Your task to perform on an android device: toggle data saver in the chrome app Image 0: 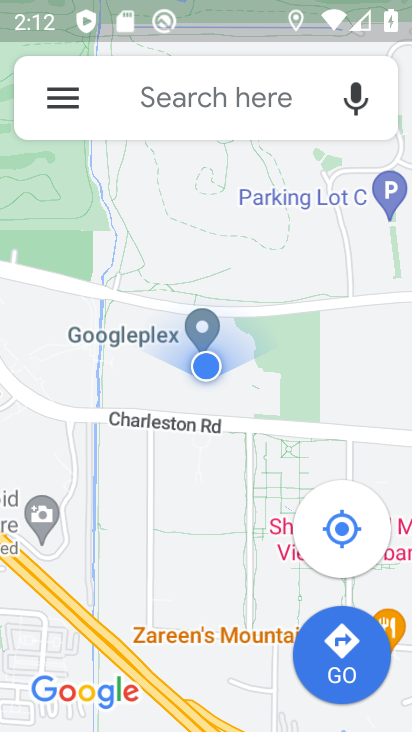
Step 0: press home button
Your task to perform on an android device: toggle data saver in the chrome app Image 1: 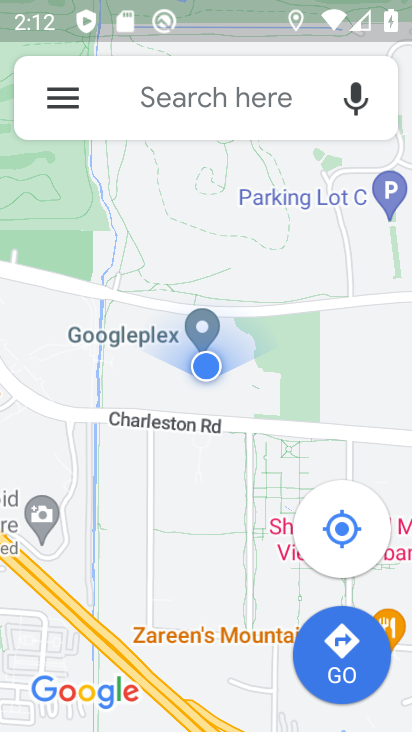
Step 1: press home button
Your task to perform on an android device: toggle data saver in the chrome app Image 2: 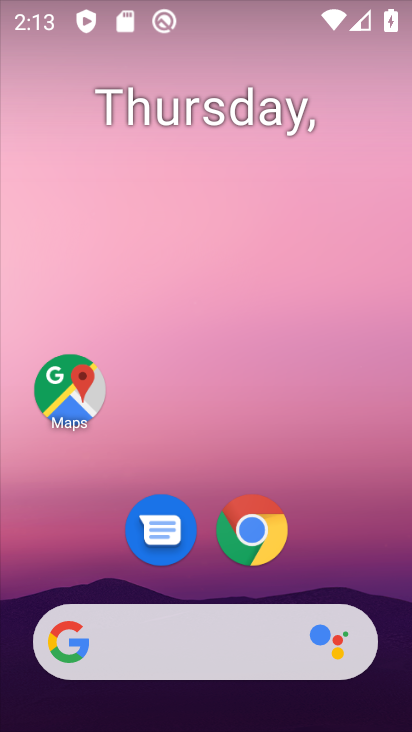
Step 2: drag from (349, 560) to (298, 218)
Your task to perform on an android device: toggle data saver in the chrome app Image 3: 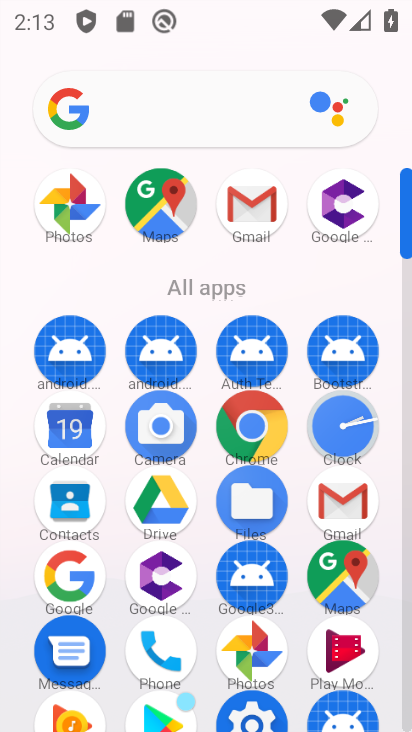
Step 3: click (248, 706)
Your task to perform on an android device: toggle data saver in the chrome app Image 4: 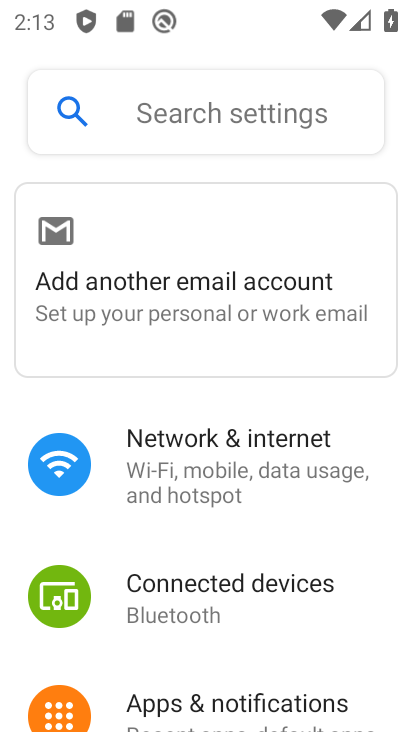
Step 4: drag from (339, 552) to (345, 264)
Your task to perform on an android device: toggle data saver in the chrome app Image 5: 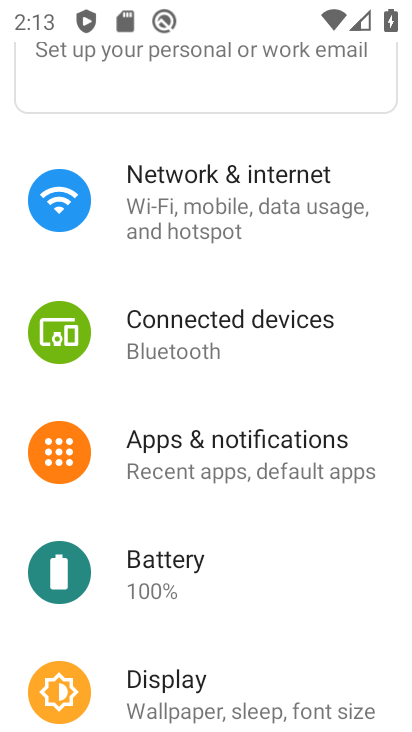
Step 5: drag from (232, 652) to (238, 253)
Your task to perform on an android device: toggle data saver in the chrome app Image 6: 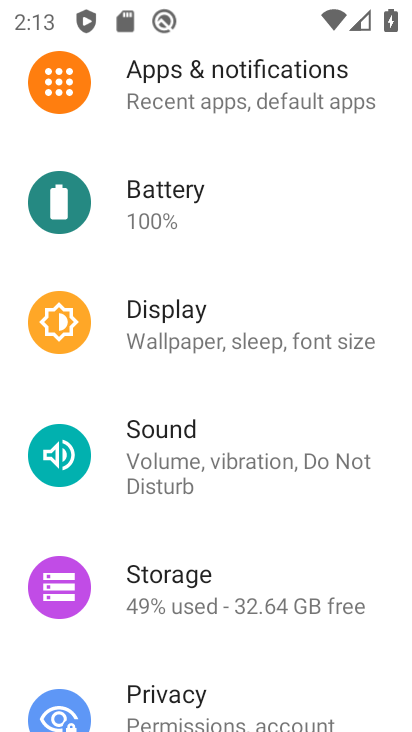
Step 6: drag from (199, 608) to (178, 360)
Your task to perform on an android device: toggle data saver in the chrome app Image 7: 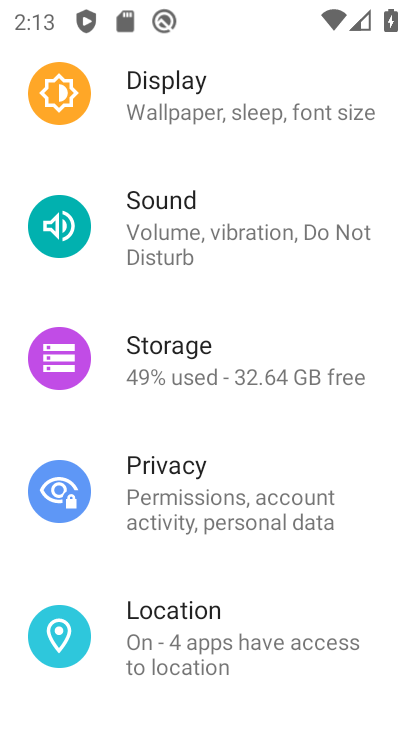
Step 7: drag from (209, 644) to (213, 414)
Your task to perform on an android device: toggle data saver in the chrome app Image 8: 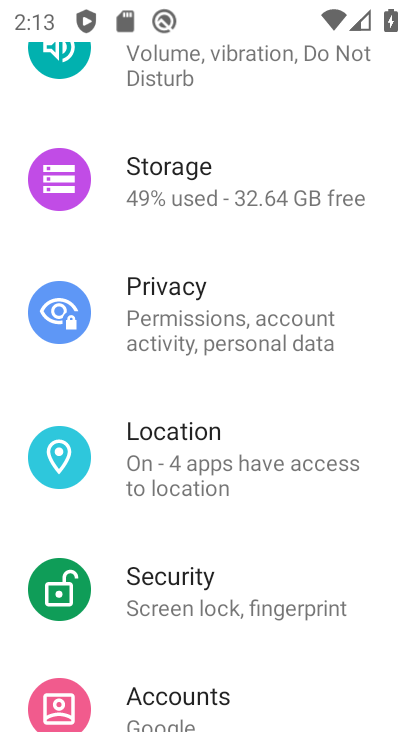
Step 8: press home button
Your task to perform on an android device: toggle data saver in the chrome app Image 9: 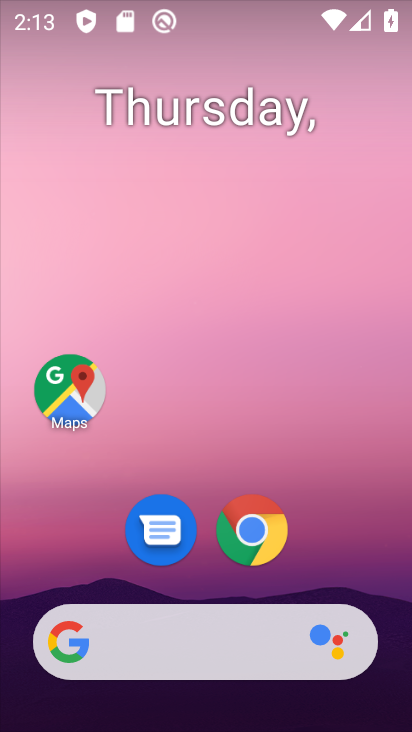
Step 9: drag from (392, 542) to (348, 0)
Your task to perform on an android device: toggle data saver in the chrome app Image 10: 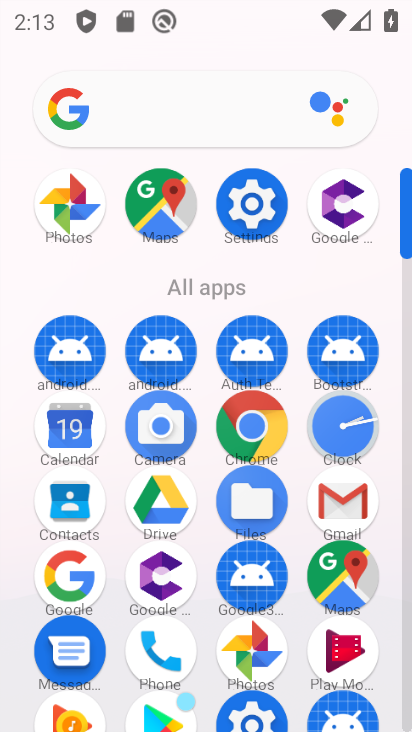
Step 10: click (243, 448)
Your task to perform on an android device: toggle data saver in the chrome app Image 11: 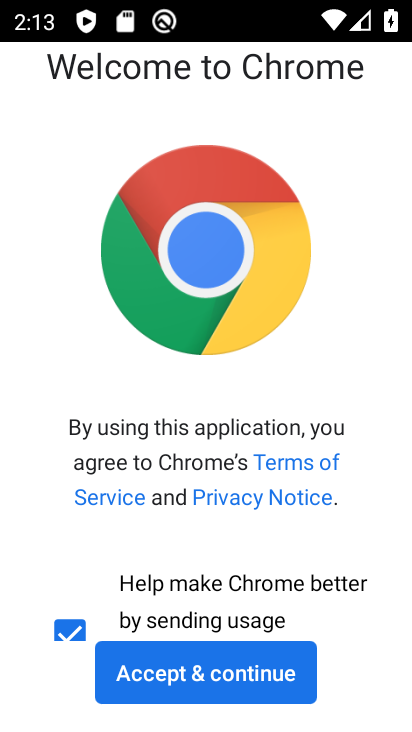
Step 11: click (239, 681)
Your task to perform on an android device: toggle data saver in the chrome app Image 12: 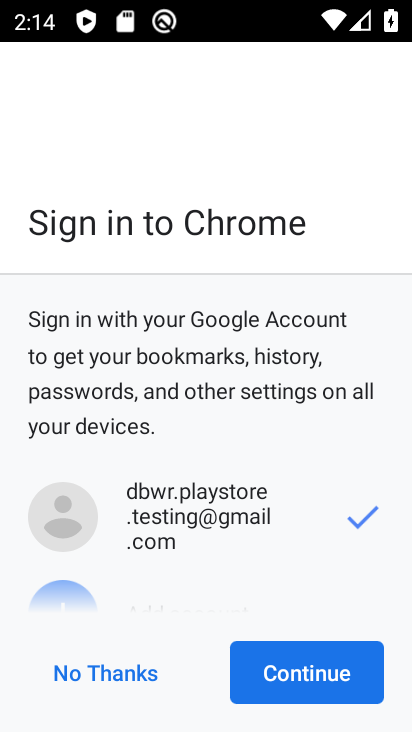
Step 12: click (351, 671)
Your task to perform on an android device: toggle data saver in the chrome app Image 13: 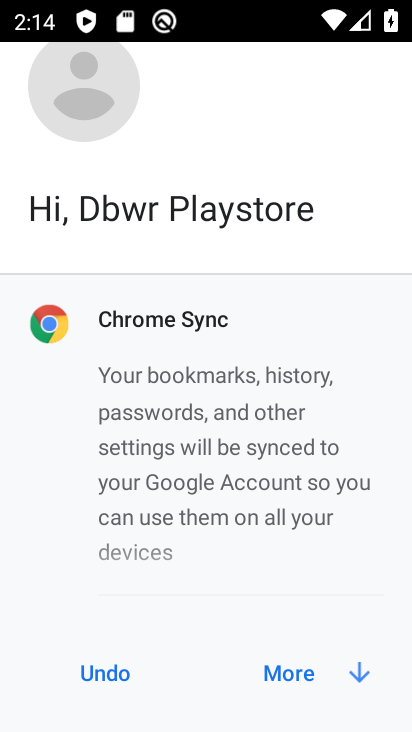
Step 13: click (351, 671)
Your task to perform on an android device: toggle data saver in the chrome app Image 14: 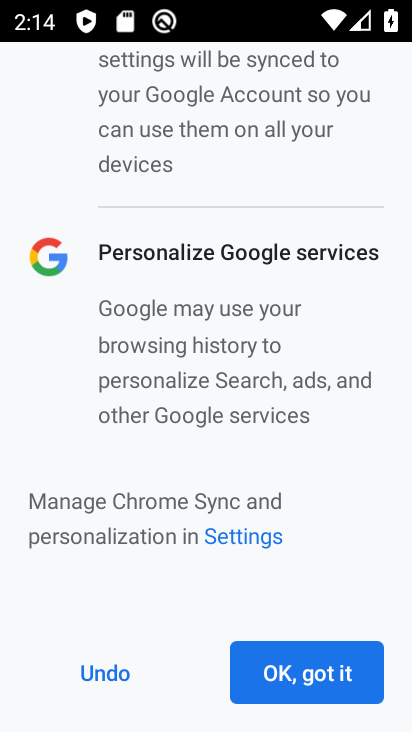
Step 14: click (351, 671)
Your task to perform on an android device: toggle data saver in the chrome app Image 15: 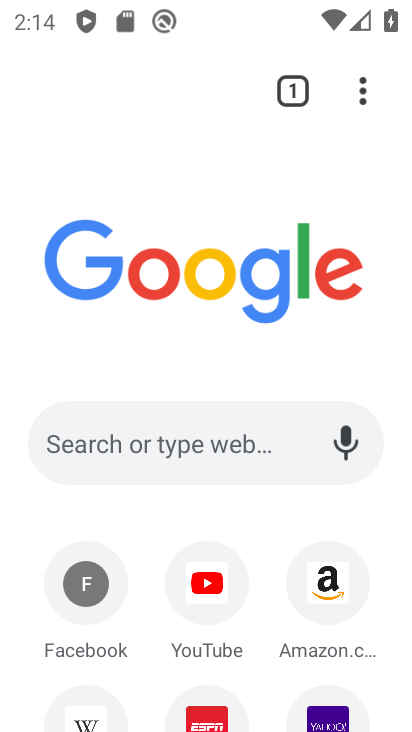
Step 15: drag from (359, 95) to (112, 572)
Your task to perform on an android device: toggle data saver in the chrome app Image 16: 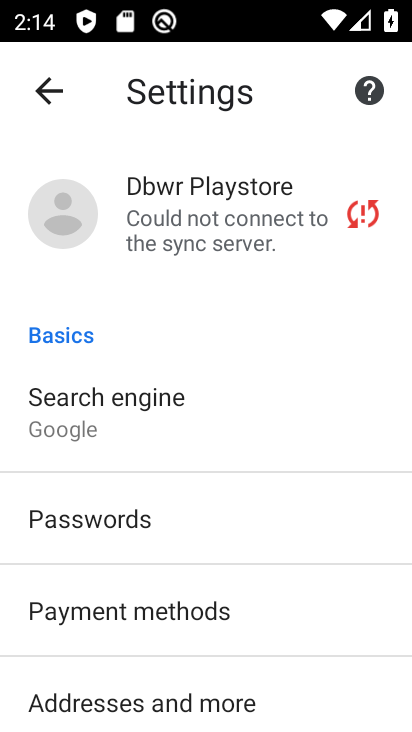
Step 16: drag from (272, 682) to (304, 156)
Your task to perform on an android device: toggle data saver in the chrome app Image 17: 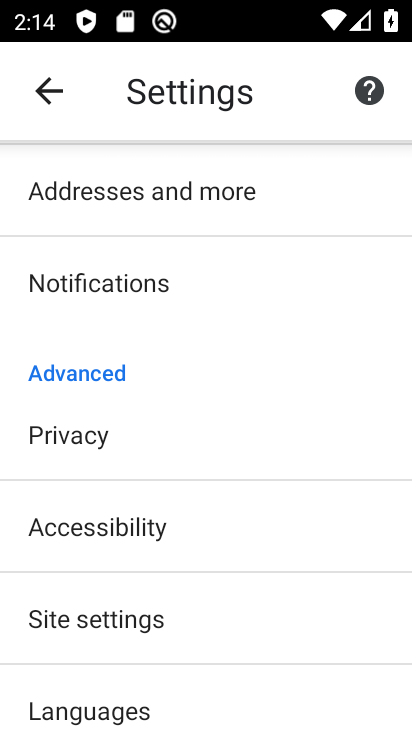
Step 17: drag from (158, 641) to (171, 316)
Your task to perform on an android device: toggle data saver in the chrome app Image 18: 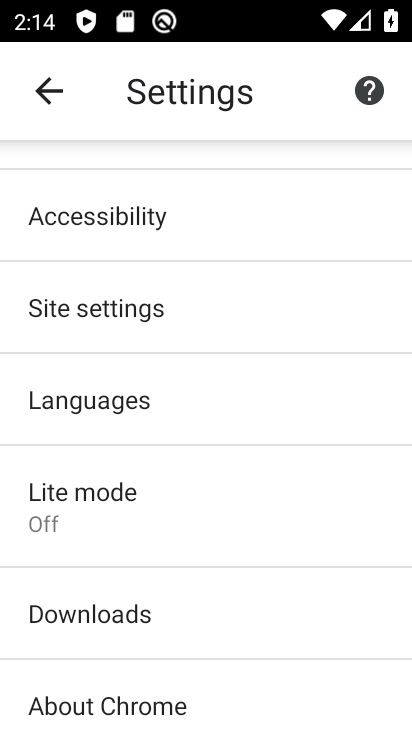
Step 18: click (122, 501)
Your task to perform on an android device: toggle data saver in the chrome app Image 19: 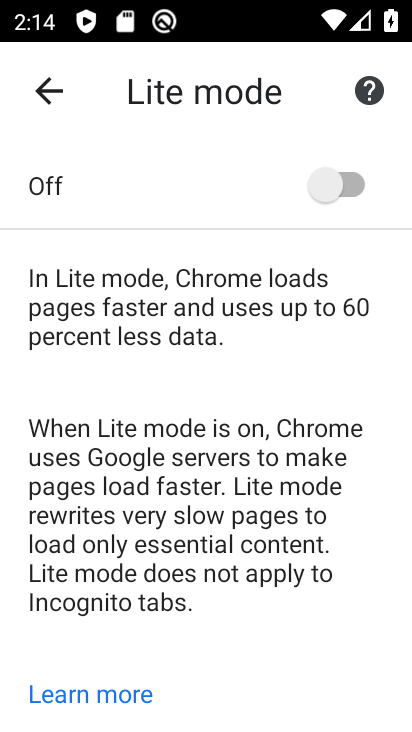
Step 19: click (308, 184)
Your task to perform on an android device: toggle data saver in the chrome app Image 20: 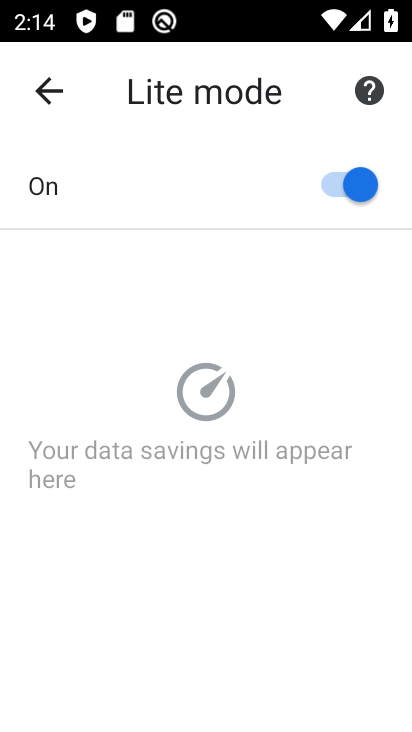
Step 20: task complete